Your task to perform on an android device: open wifi settings Image 0: 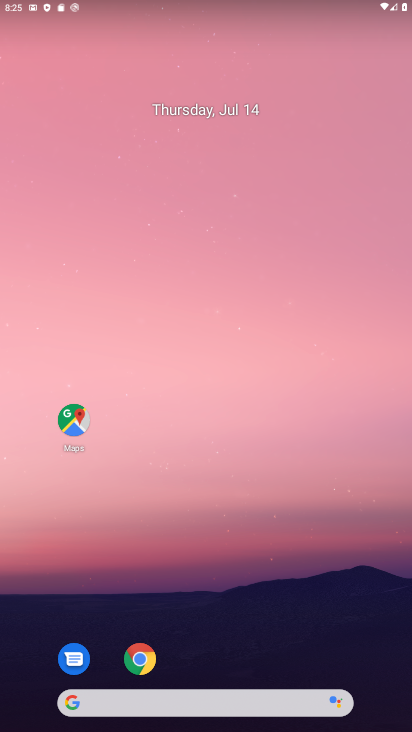
Step 0: press home button
Your task to perform on an android device: open wifi settings Image 1: 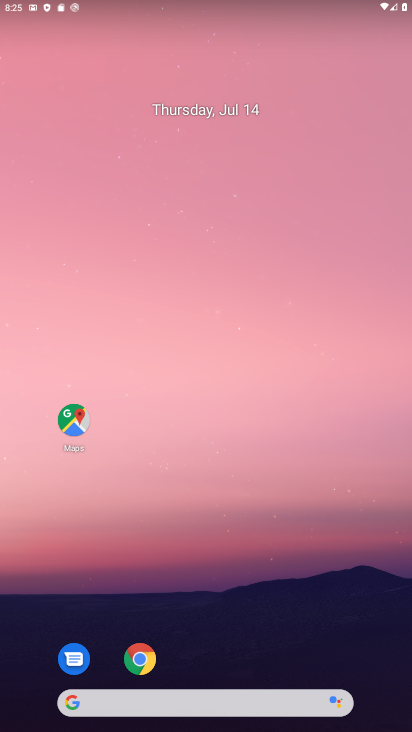
Step 1: drag from (210, 602) to (236, 53)
Your task to perform on an android device: open wifi settings Image 2: 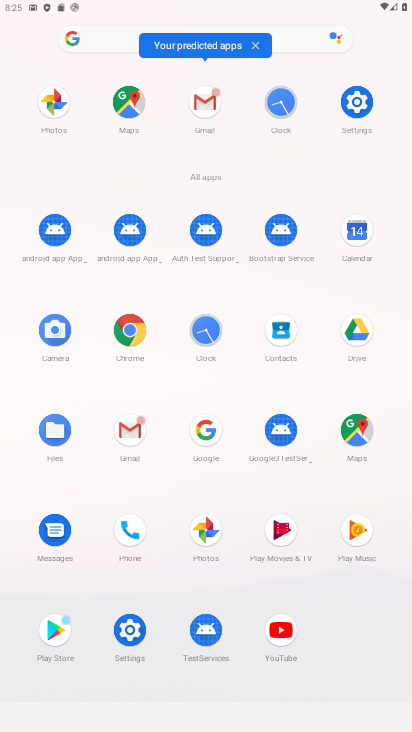
Step 2: click (362, 103)
Your task to perform on an android device: open wifi settings Image 3: 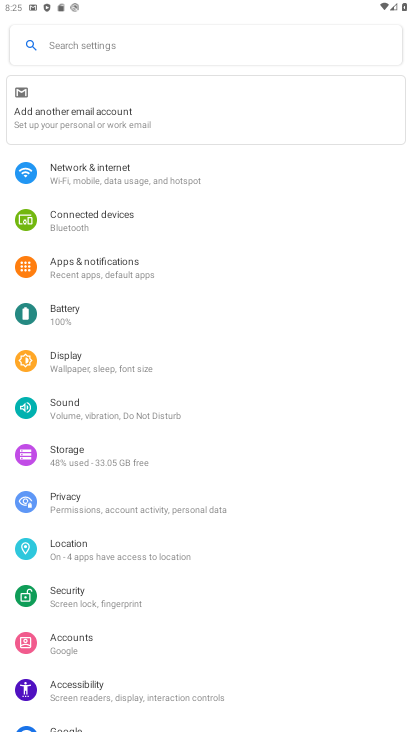
Step 3: click (139, 167)
Your task to perform on an android device: open wifi settings Image 4: 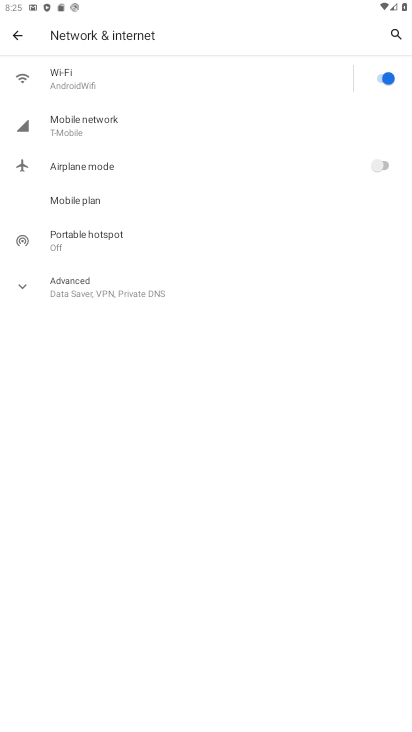
Step 4: click (113, 73)
Your task to perform on an android device: open wifi settings Image 5: 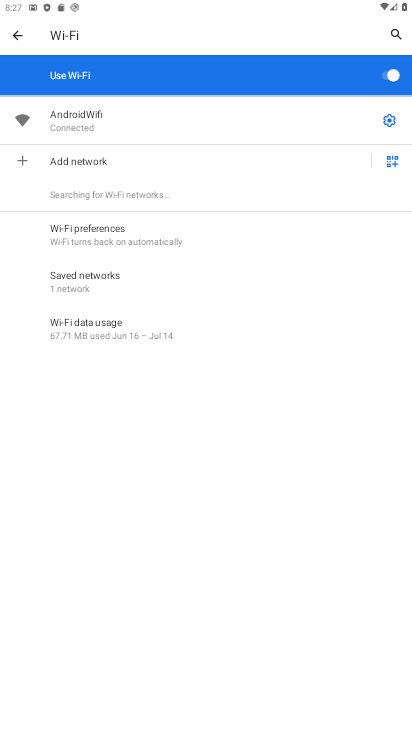
Step 5: task complete